Your task to perform on an android device: change notifications settings Image 0: 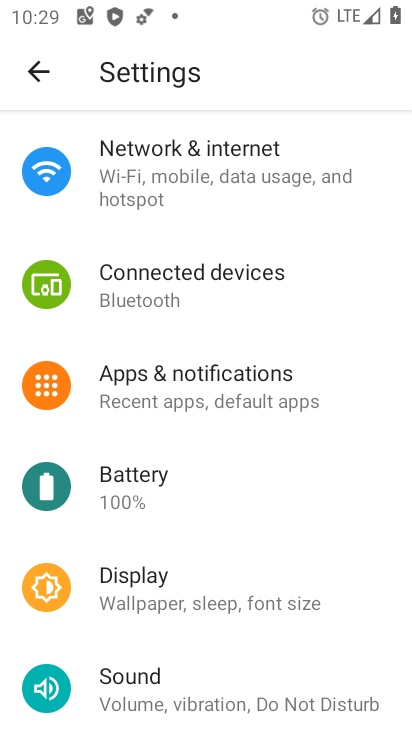
Step 0: click (153, 393)
Your task to perform on an android device: change notifications settings Image 1: 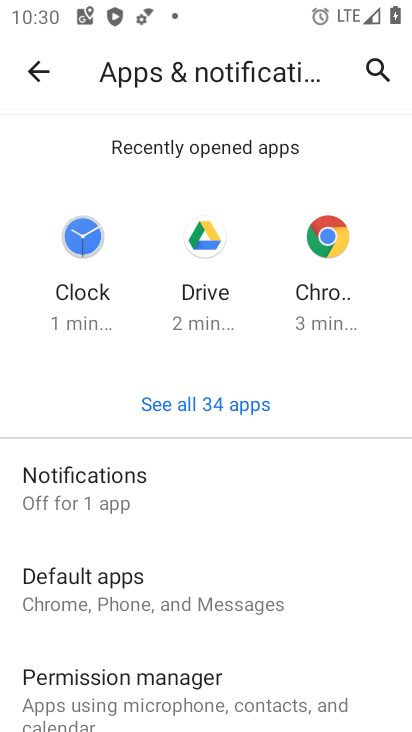
Step 1: drag from (250, 591) to (249, 431)
Your task to perform on an android device: change notifications settings Image 2: 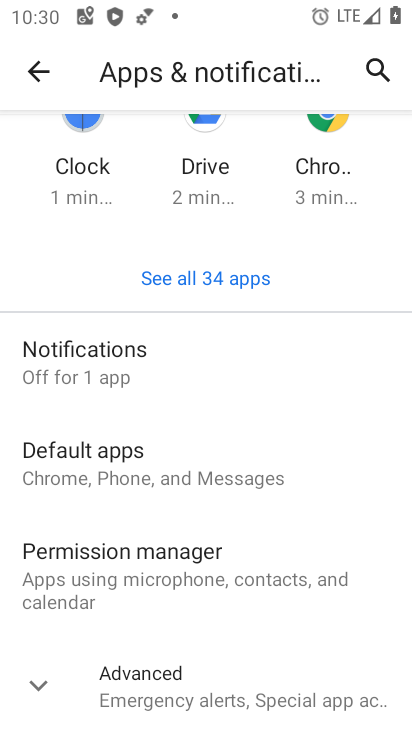
Step 2: click (161, 356)
Your task to perform on an android device: change notifications settings Image 3: 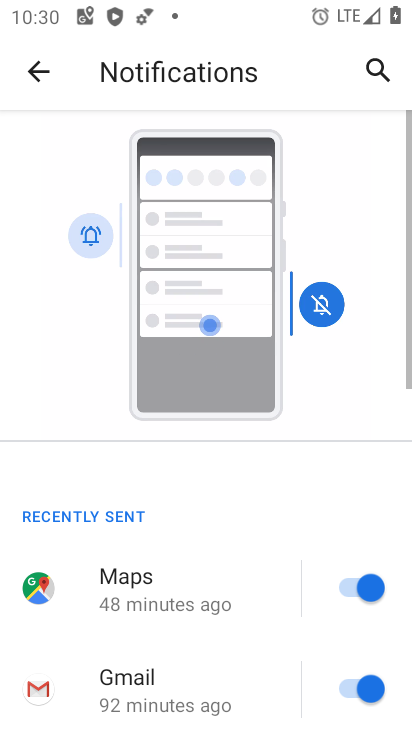
Step 3: task complete